Your task to perform on an android device: Open the phone app and click the voicemail tab. Image 0: 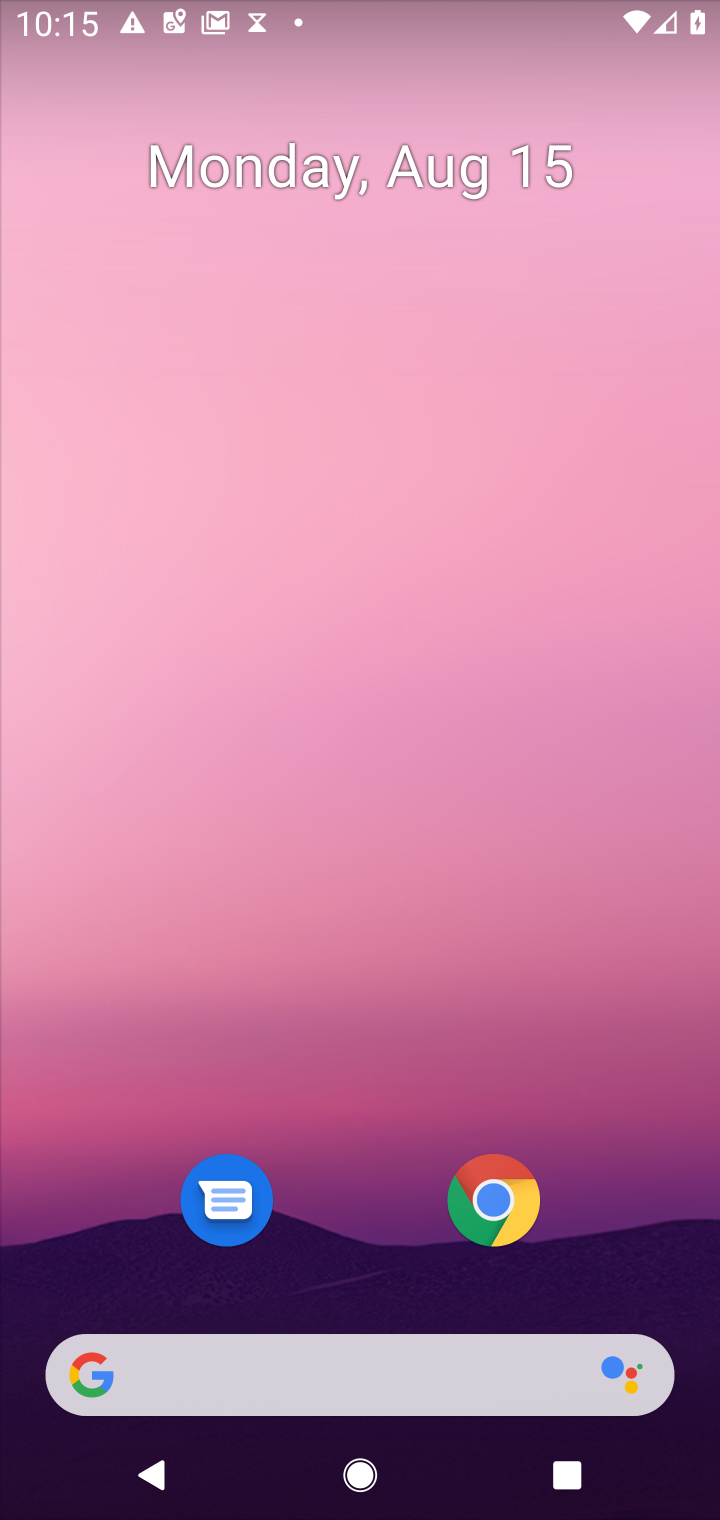
Step 0: drag from (357, 1278) to (351, 317)
Your task to perform on an android device: Open the phone app and click the voicemail tab. Image 1: 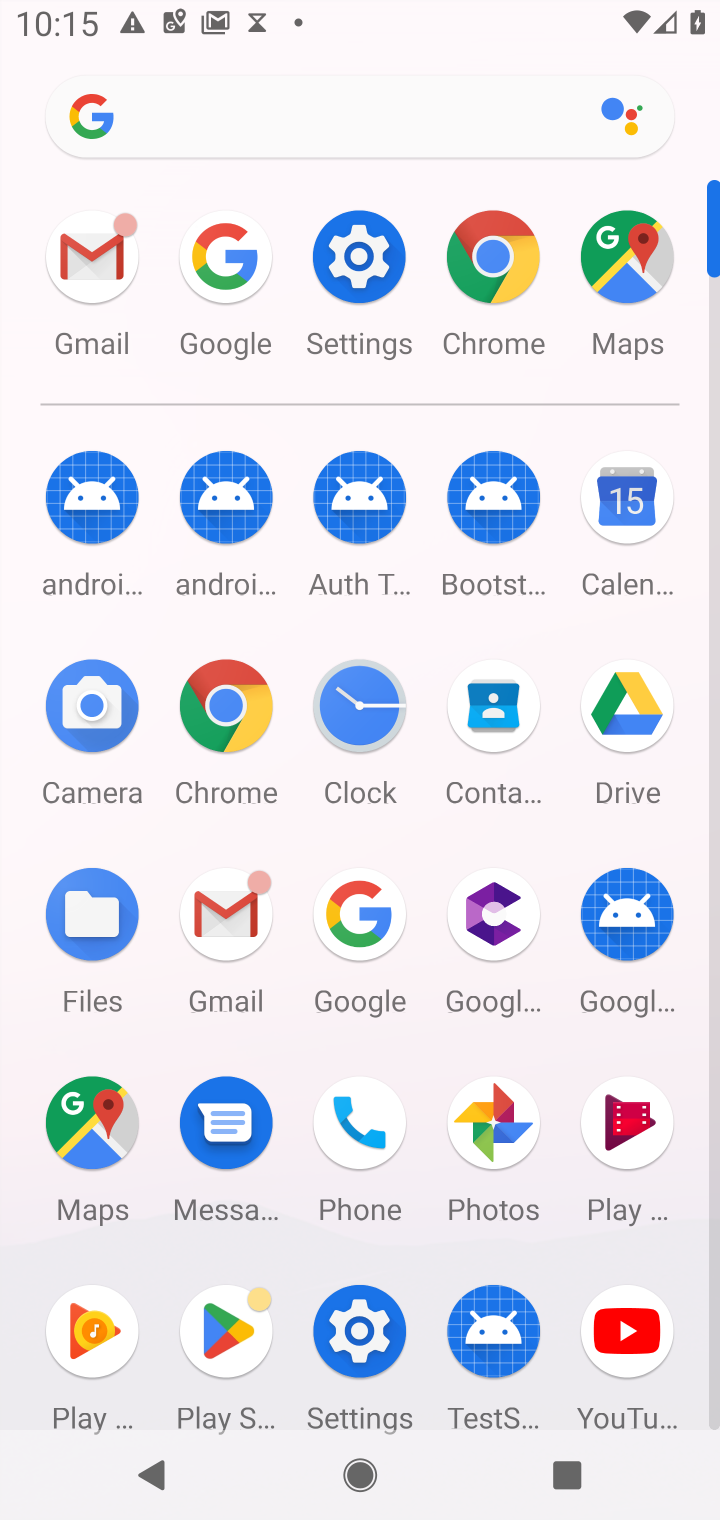
Step 1: click (354, 1135)
Your task to perform on an android device: Open the phone app and click the voicemail tab. Image 2: 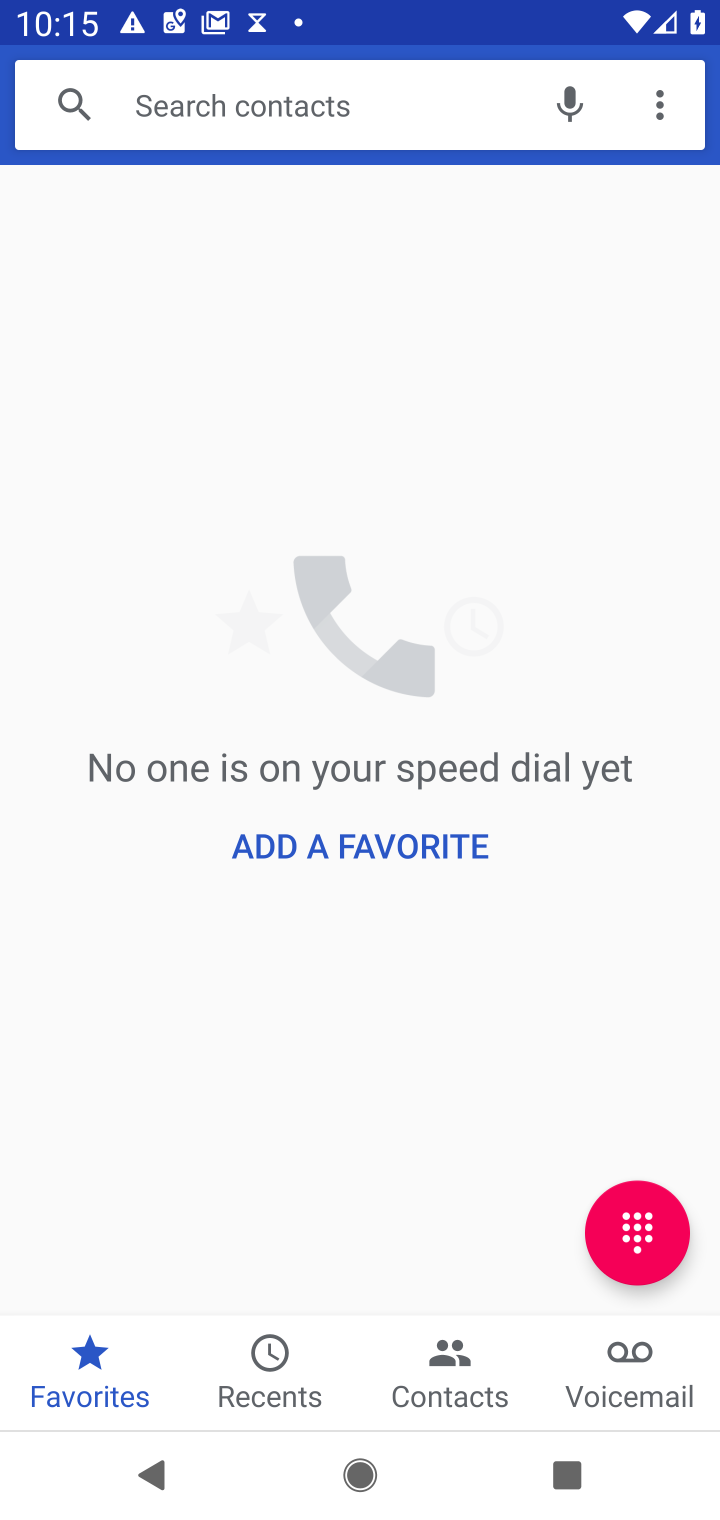
Step 2: click (623, 1382)
Your task to perform on an android device: Open the phone app and click the voicemail tab. Image 3: 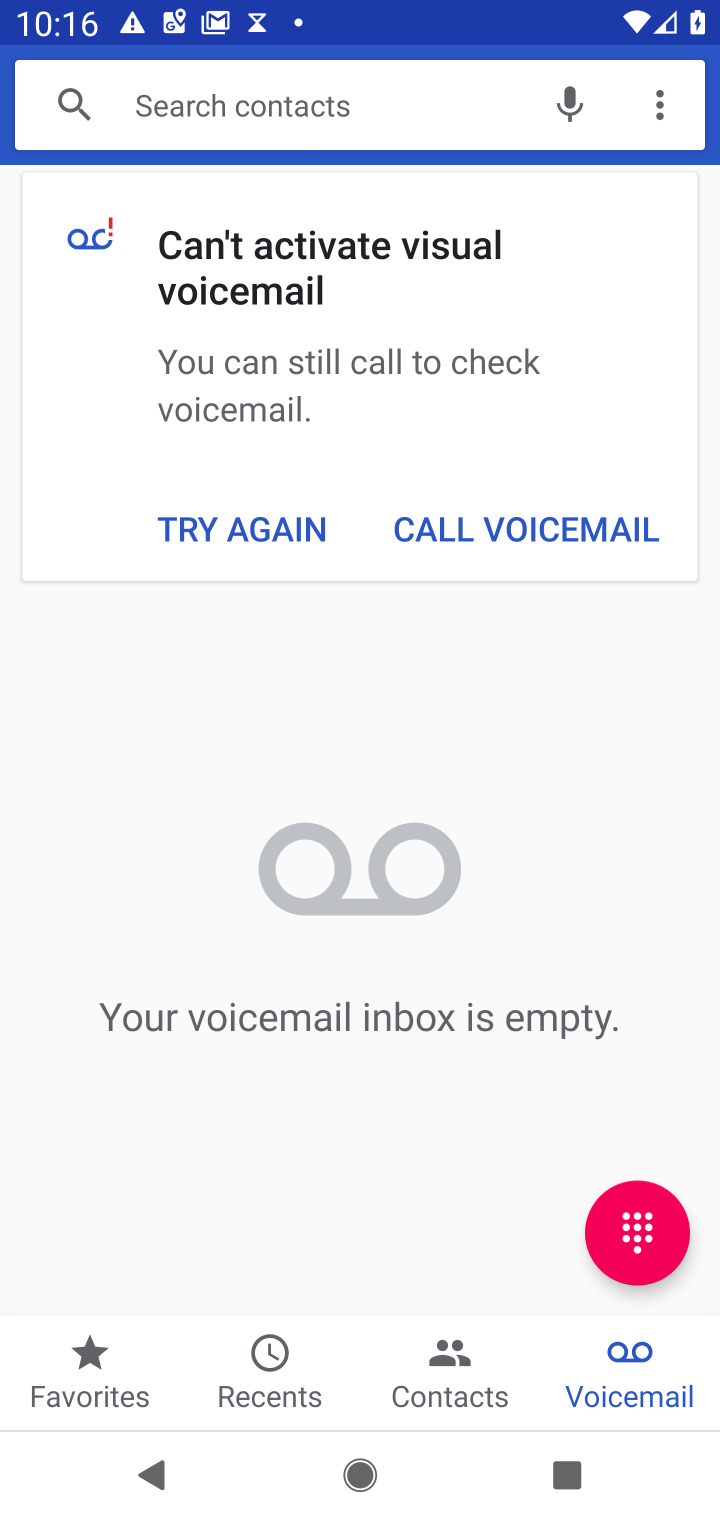
Step 3: task complete